Your task to perform on an android device: choose inbox layout in the gmail app Image 0: 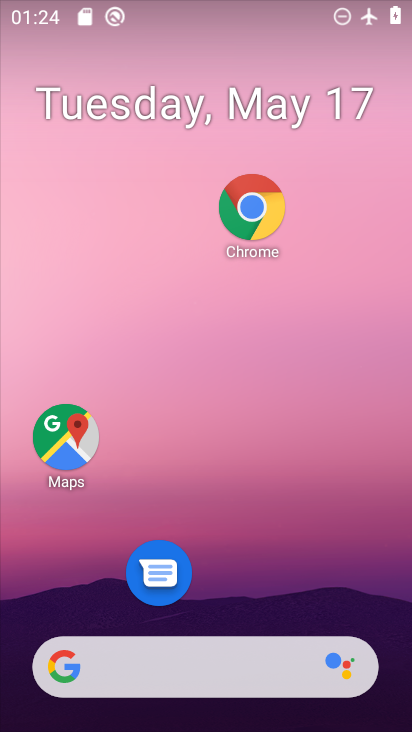
Step 0: press home button
Your task to perform on an android device: choose inbox layout in the gmail app Image 1: 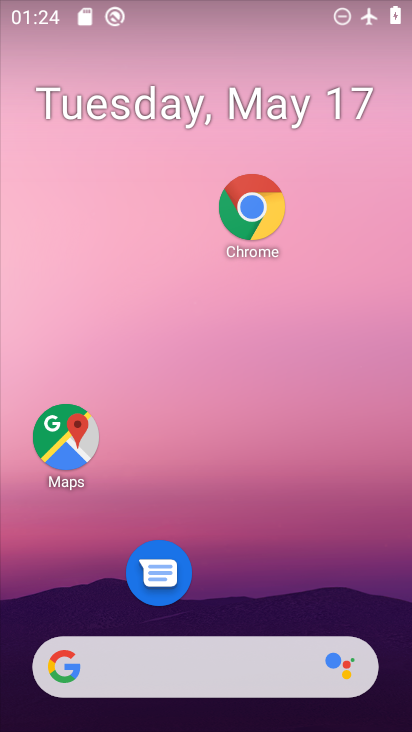
Step 1: drag from (257, 659) to (232, 2)
Your task to perform on an android device: choose inbox layout in the gmail app Image 2: 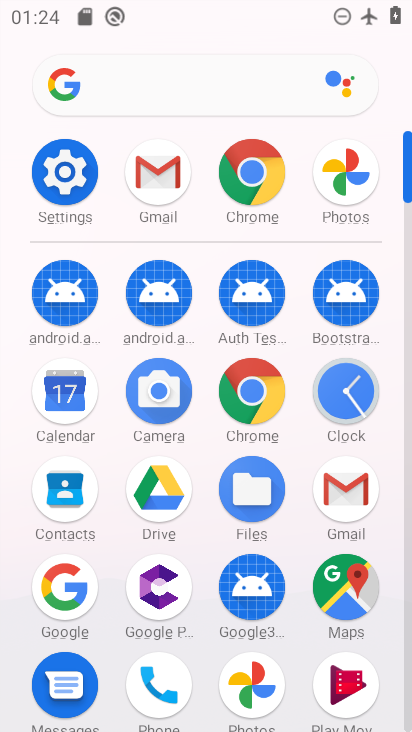
Step 2: click (352, 505)
Your task to perform on an android device: choose inbox layout in the gmail app Image 3: 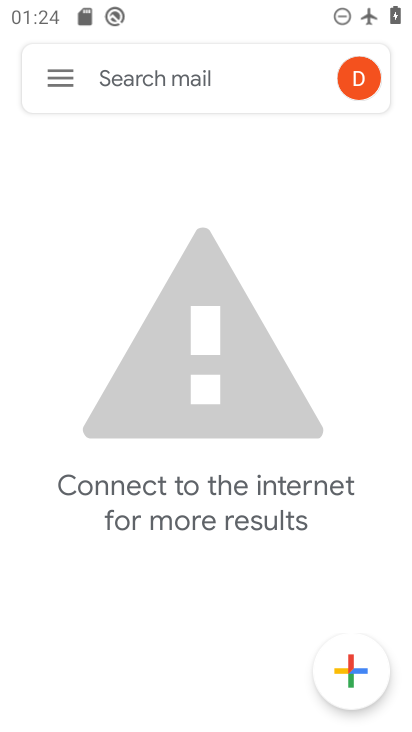
Step 3: click (61, 76)
Your task to perform on an android device: choose inbox layout in the gmail app Image 4: 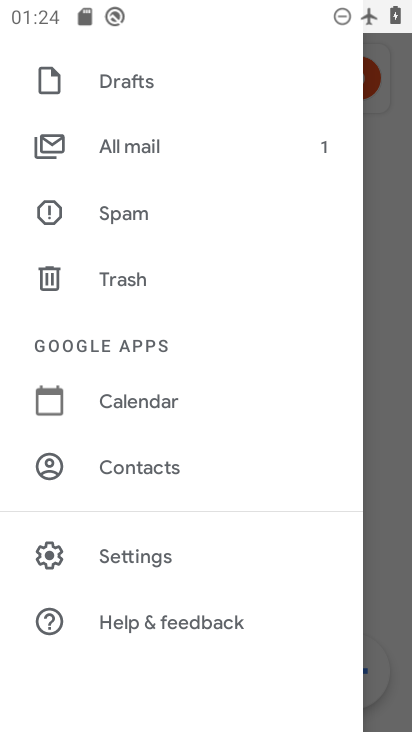
Step 4: click (165, 557)
Your task to perform on an android device: choose inbox layout in the gmail app Image 5: 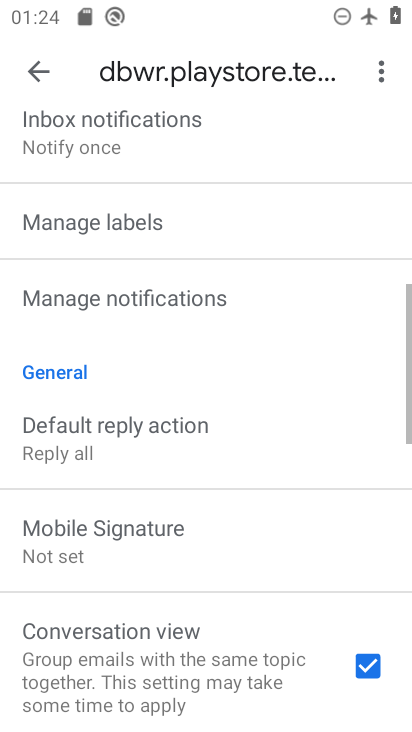
Step 5: drag from (183, 231) to (227, 632)
Your task to perform on an android device: choose inbox layout in the gmail app Image 6: 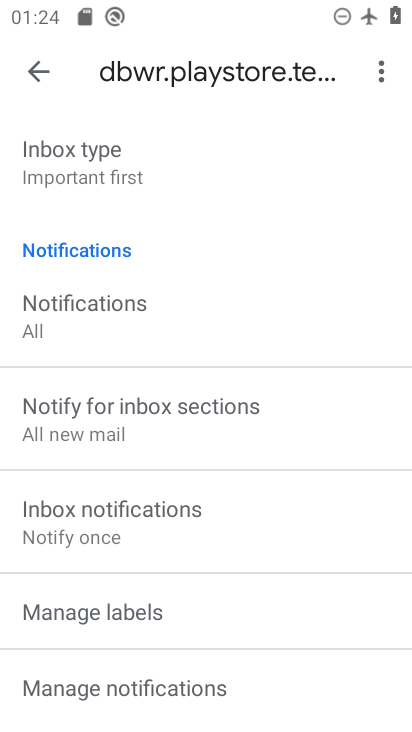
Step 6: drag from (180, 285) to (229, 609)
Your task to perform on an android device: choose inbox layout in the gmail app Image 7: 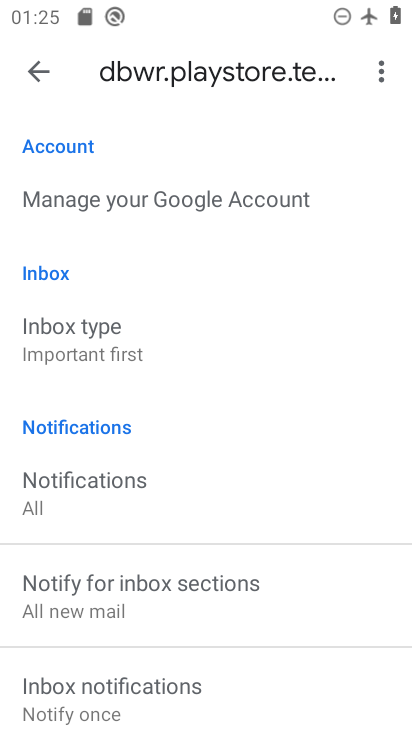
Step 7: click (113, 343)
Your task to perform on an android device: choose inbox layout in the gmail app Image 8: 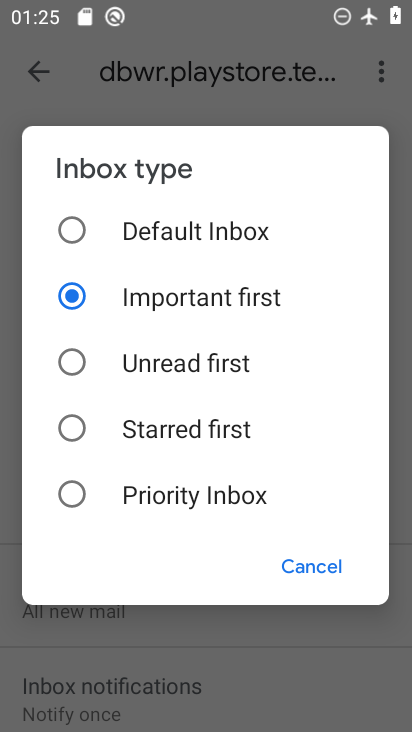
Step 8: click (70, 228)
Your task to perform on an android device: choose inbox layout in the gmail app Image 9: 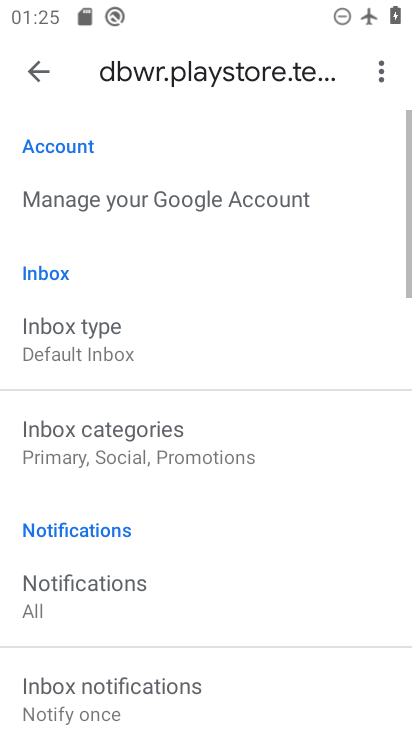
Step 9: task complete